Your task to perform on an android device: check google app version Image 0: 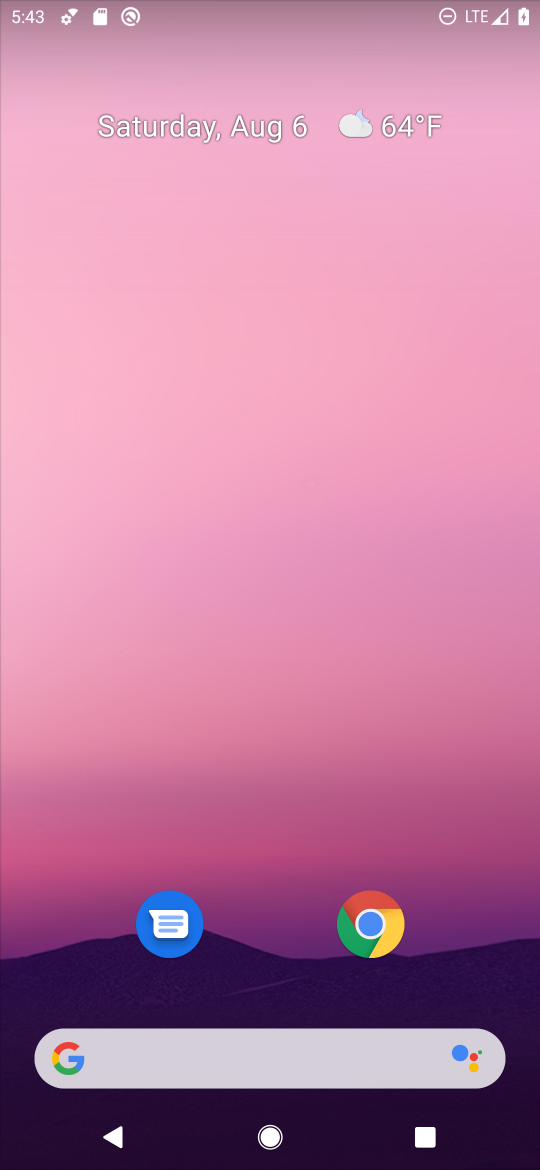
Step 0: drag from (258, 959) to (254, 27)
Your task to perform on an android device: check google app version Image 1: 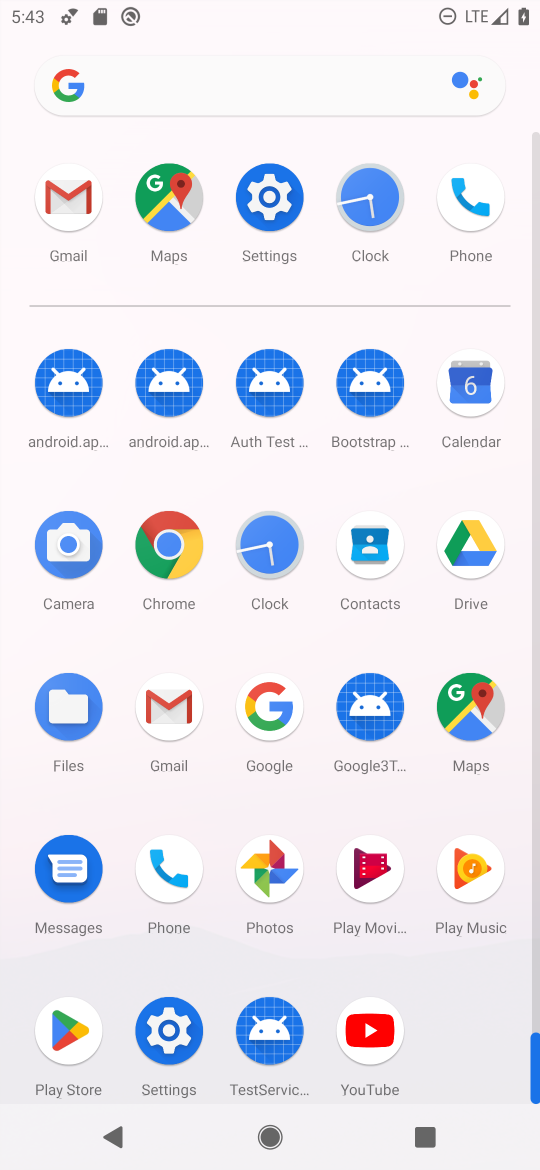
Step 1: click (269, 710)
Your task to perform on an android device: check google app version Image 2: 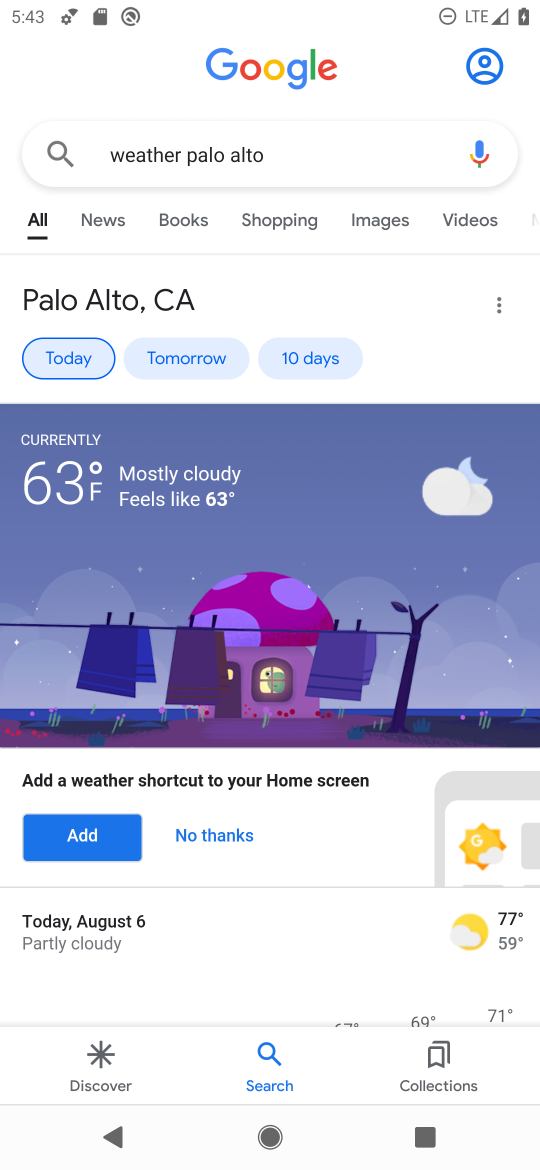
Step 2: click (491, 68)
Your task to perform on an android device: check google app version Image 3: 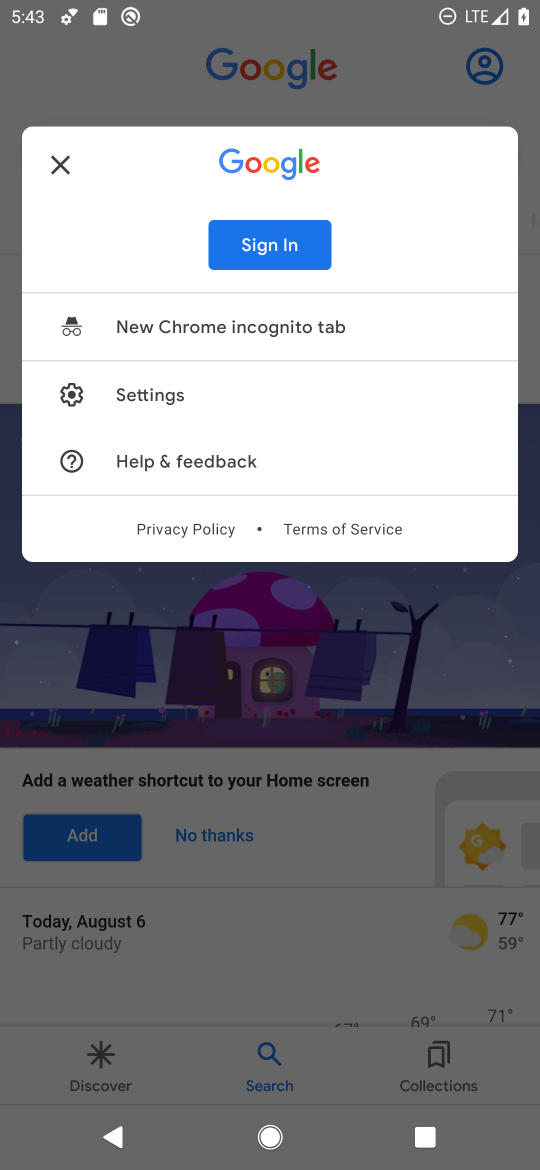
Step 3: click (123, 394)
Your task to perform on an android device: check google app version Image 4: 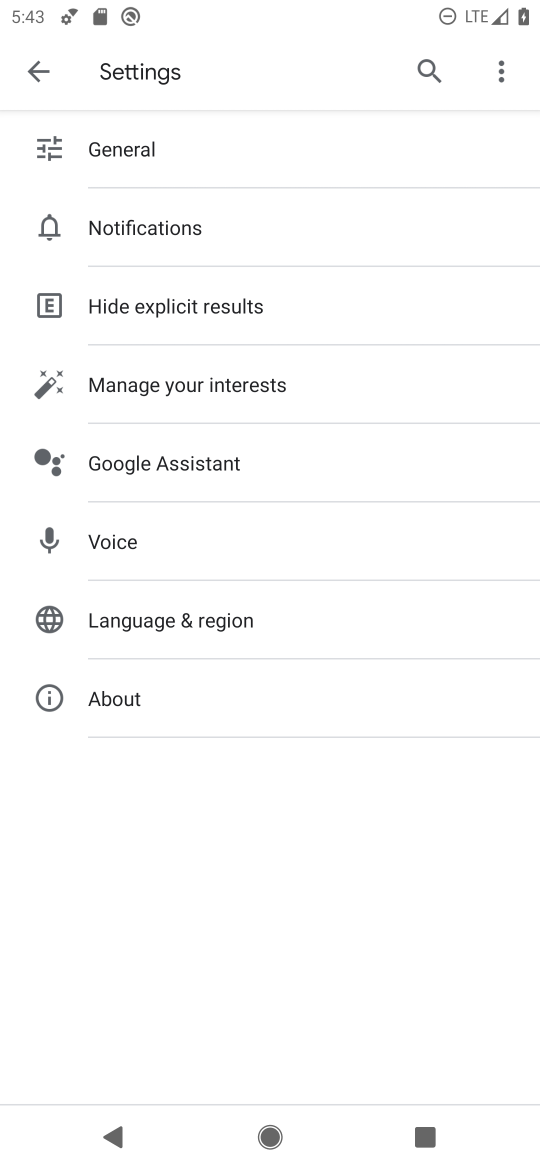
Step 4: click (119, 686)
Your task to perform on an android device: check google app version Image 5: 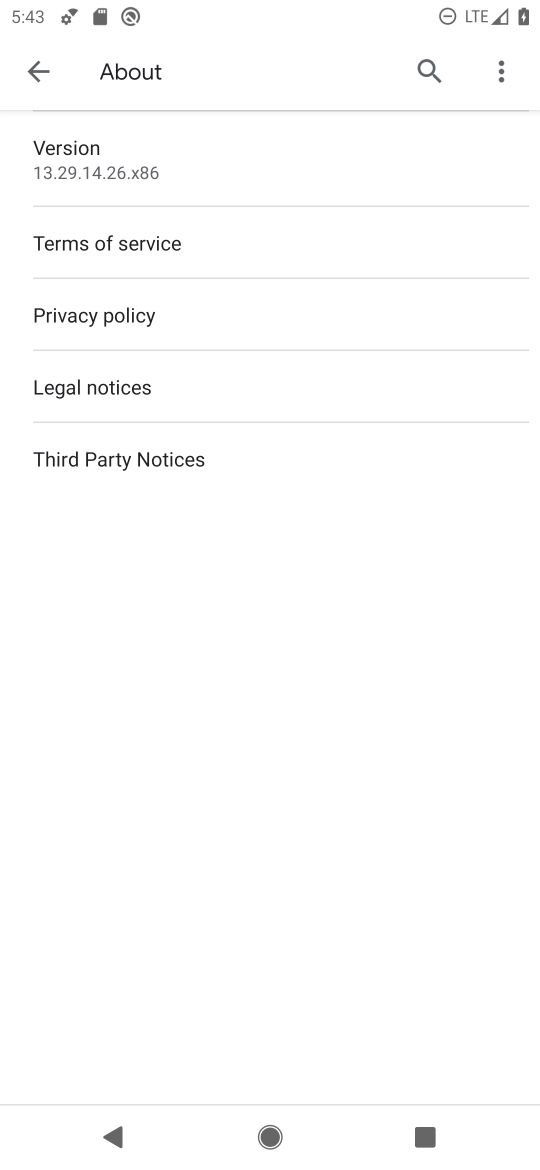
Step 5: task complete